Your task to perform on an android device: Open display settings Image 0: 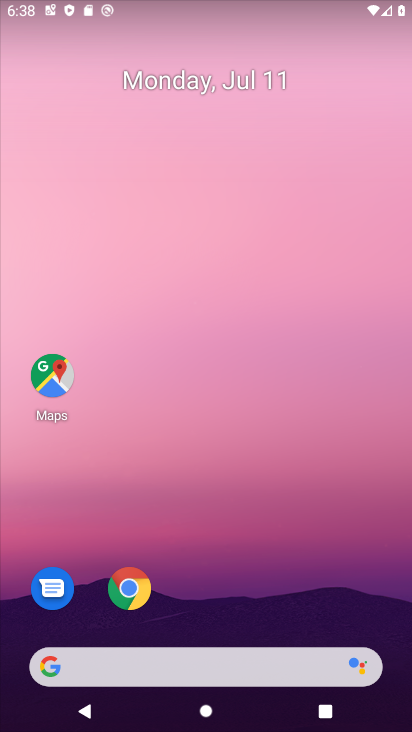
Step 0: drag from (402, 675) to (296, 169)
Your task to perform on an android device: Open display settings Image 1: 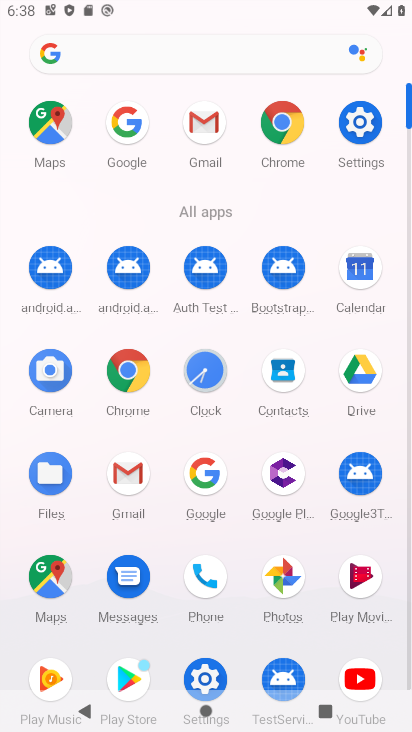
Step 1: click (347, 119)
Your task to perform on an android device: Open display settings Image 2: 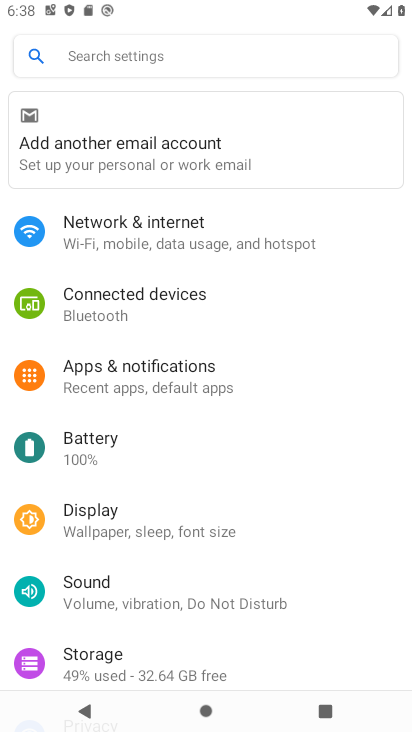
Step 2: click (110, 531)
Your task to perform on an android device: Open display settings Image 3: 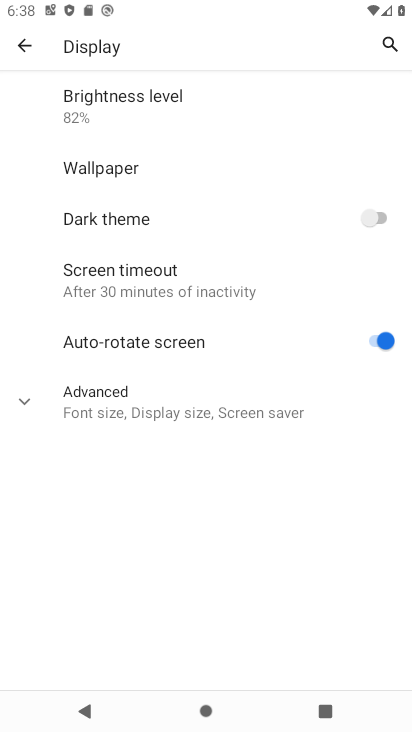
Step 3: task complete